Your task to perform on an android device: change alarm snooze length Image 0: 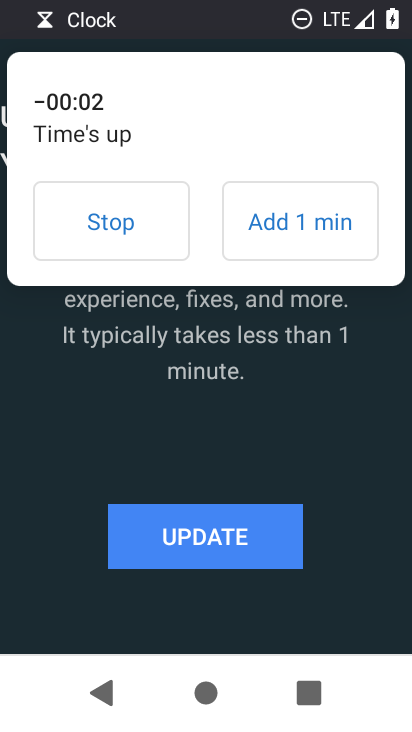
Step 0: click (149, 232)
Your task to perform on an android device: change alarm snooze length Image 1: 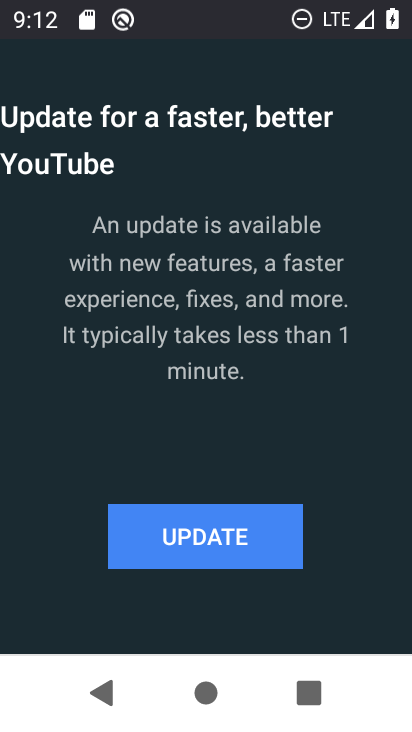
Step 1: press home button
Your task to perform on an android device: change alarm snooze length Image 2: 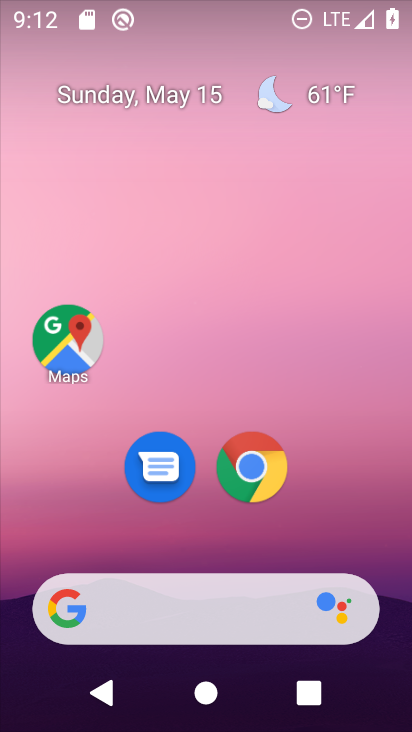
Step 2: drag from (223, 523) to (269, 93)
Your task to perform on an android device: change alarm snooze length Image 3: 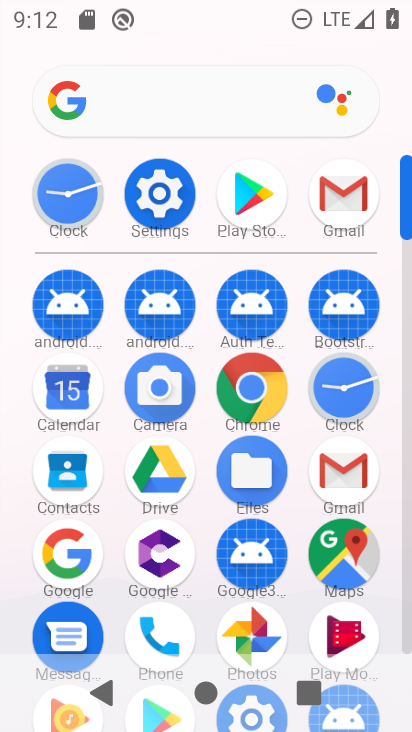
Step 3: click (346, 361)
Your task to perform on an android device: change alarm snooze length Image 4: 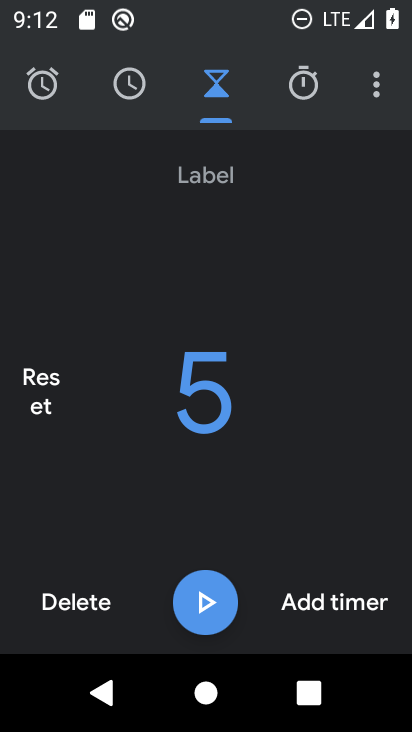
Step 4: click (363, 88)
Your task to perform on an android device: change alarm snooze length Image 5: 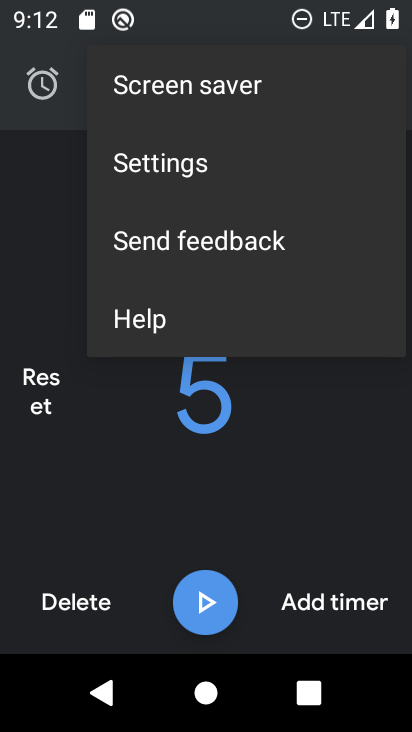
Step 5: click (315, 165)
Your task to perform on an android device: change alarm snooze length Image 6: 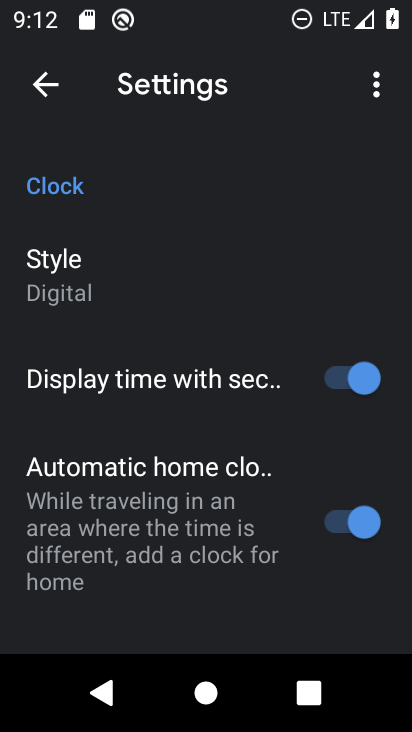
Step 6: drag from (151, 429) to (190, 220)
Your task to perform on an android device: change alarm snooze length Image 7: 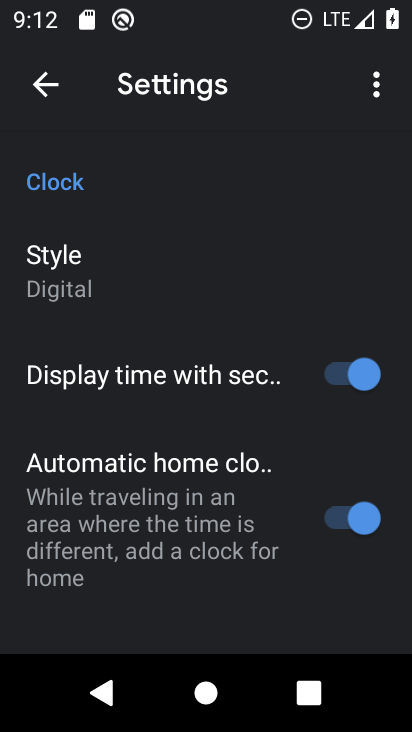
Step 7: drag from (195, 551) to (193, 110)
Your task to perform on an android device: change alarm snooze length Image 8: 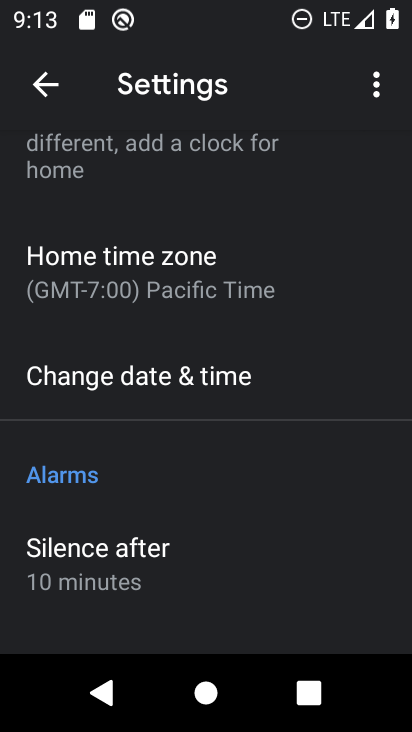
Step 8: drag from (209, 610) to (282, 44)
Your task to perform on an android device: change alarm snooze length Image 9: 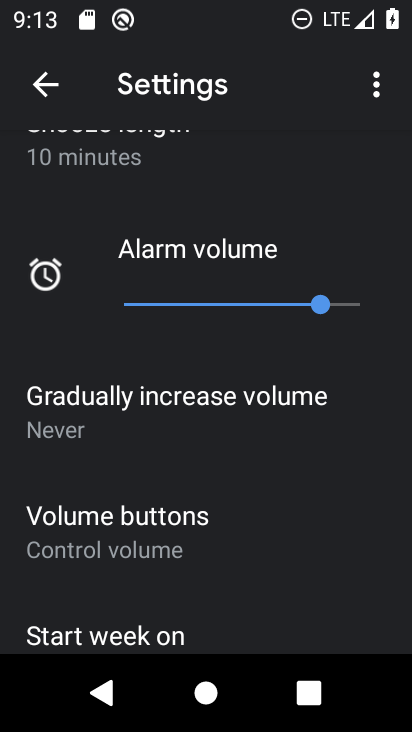
Step 9: click (218, 566)
Your task to perform on an android device: change alarm snooze length Image 10: 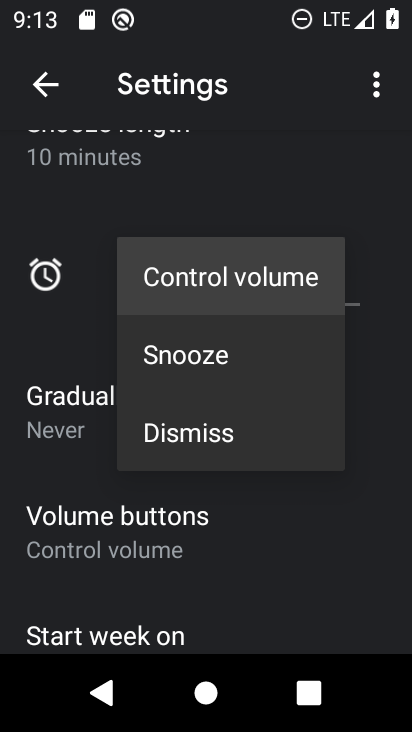
Step 10: click (265, 198)
Your task to perform on an android device: change alarm snooze length Image 11: 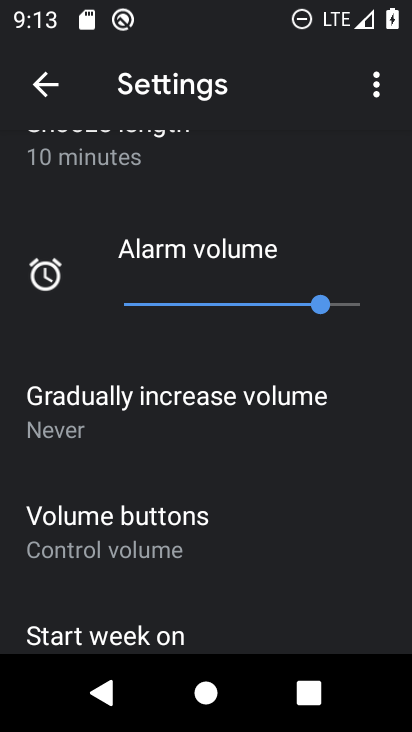
Step 11: click (158, 161)
Your task to perform on an android device: change alarm snooze length Image 12: 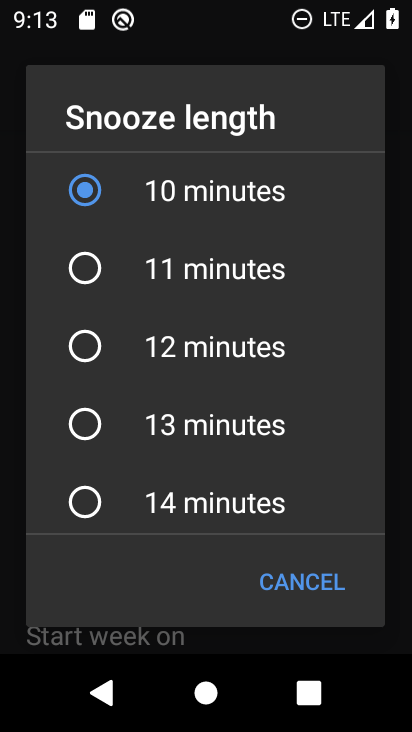
Step 12: click (185, 360)
Your task to perform on an android device: change alarm snooze length Image 13: 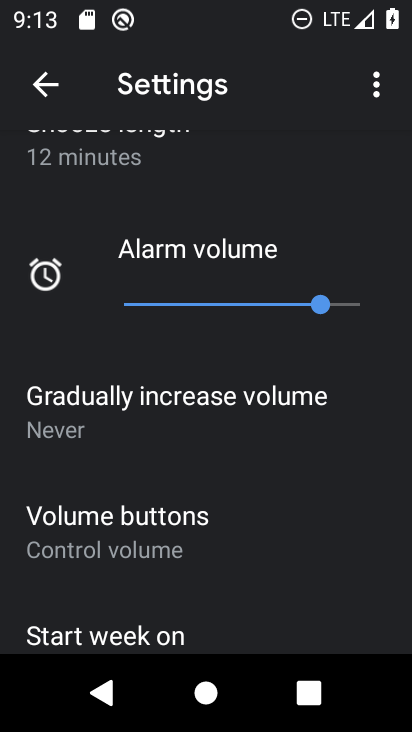
Step 13: task complete